Your task to perform on an android device: create a new album in the google photos Image 0: 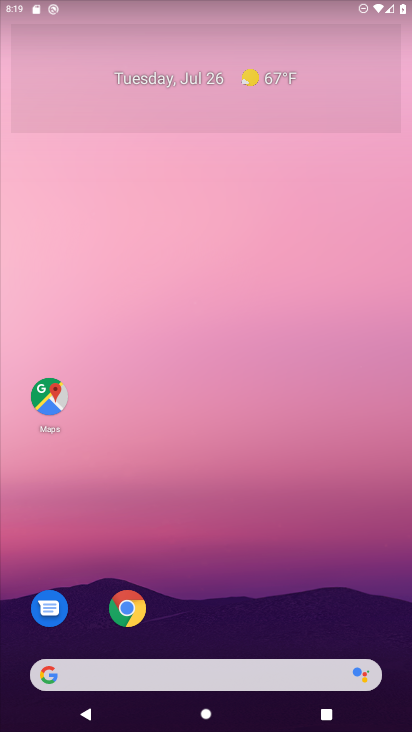
Step 0: drag from (229, 646) to (256, 213)
Your task to perform on an android device: create a new album in the google photos Image 1: 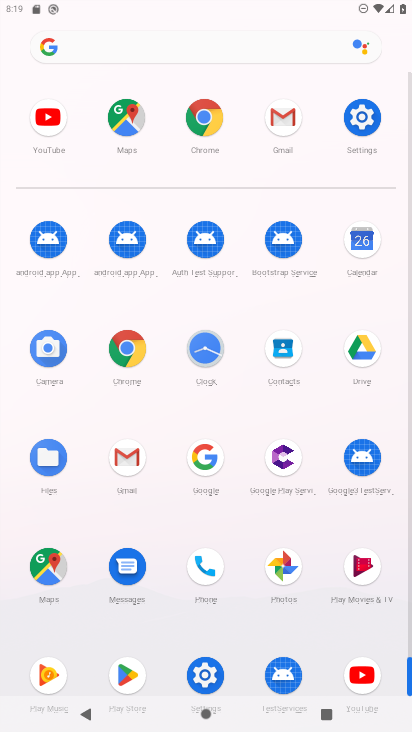
Step 1: click (287, 581)
Your task to perform on an android device: create a new album in the google photos Image 2: 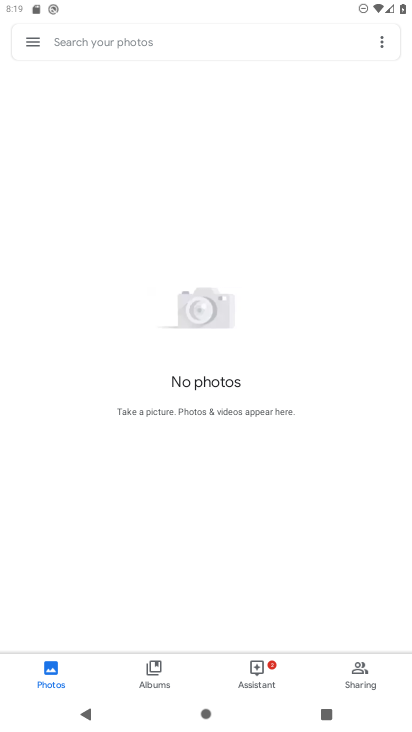
Step 2: click (152, 690)
Your task to perform on an android device: create a new album in the google photos Image 3: 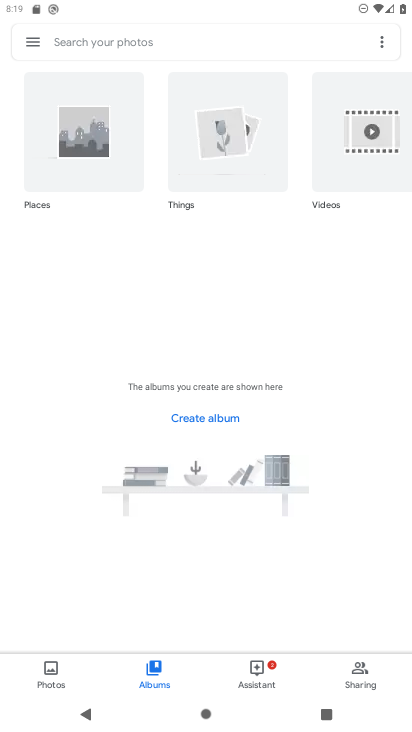
Step 3: click (222, 414)
Your task to perform on an android device: create a new album in the google photos Image 4: 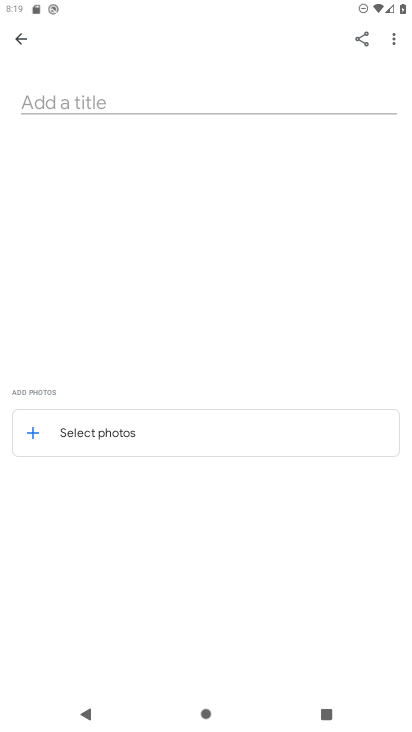
Step 4: click (106, 432)
Your task to perform on an android device: create a new album in the google photos Image 5: 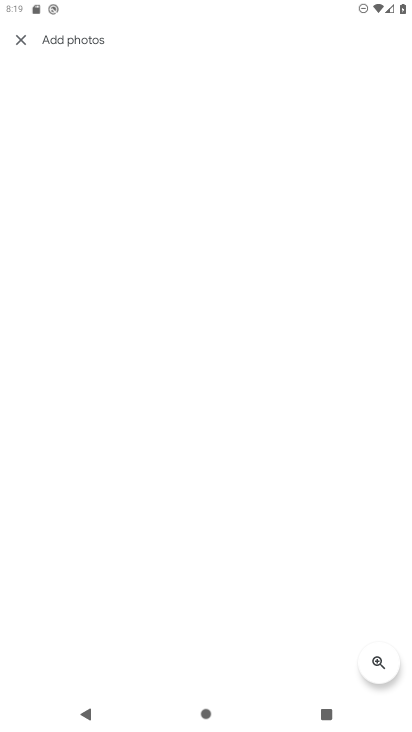
Step 5: task complete